Your task to perform on an android device: turn off location Image 0: 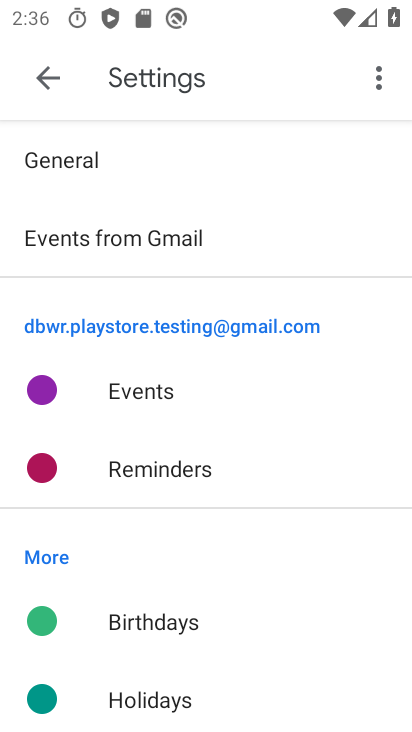
Step 0: press home button
Your task to perform on an android device: turn off location Image 1: 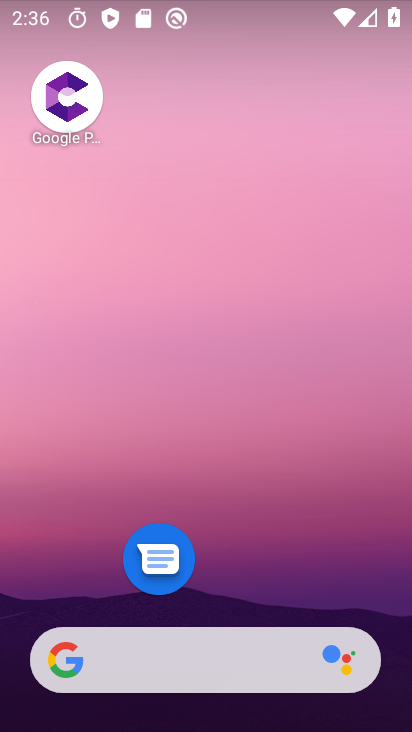
Step 1: drag from (243, 563) to (209, 119)
Your task to perform on an android device: turn off location Image 2: 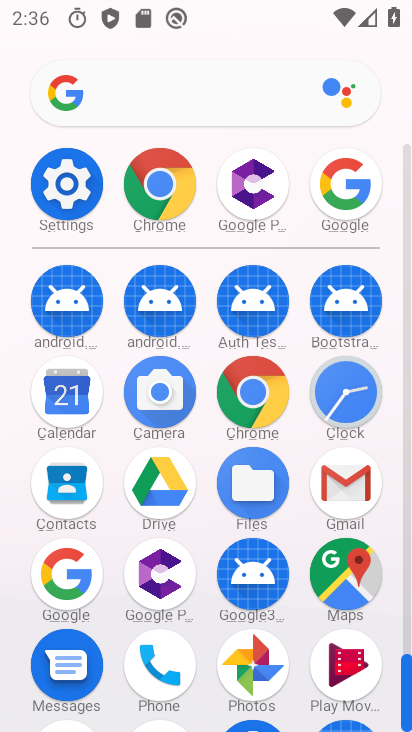
Step 2: click (60, 194)
Your task to perform on an android device: turn off location Image 3: 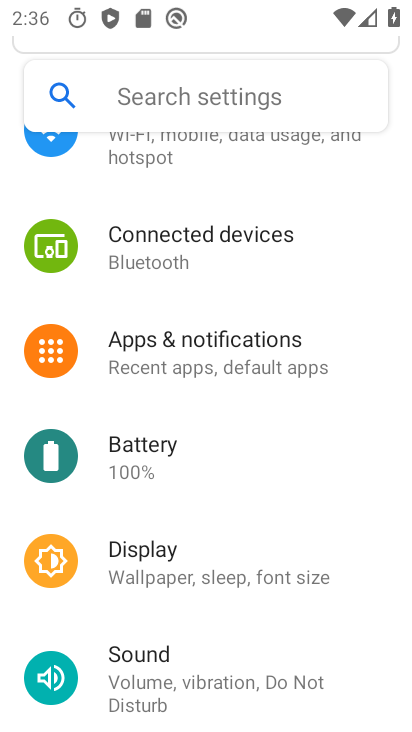
Step 3: drag from (240, 508) to (225, 17)
Your task to perform on an android device: turn off location Image 4: 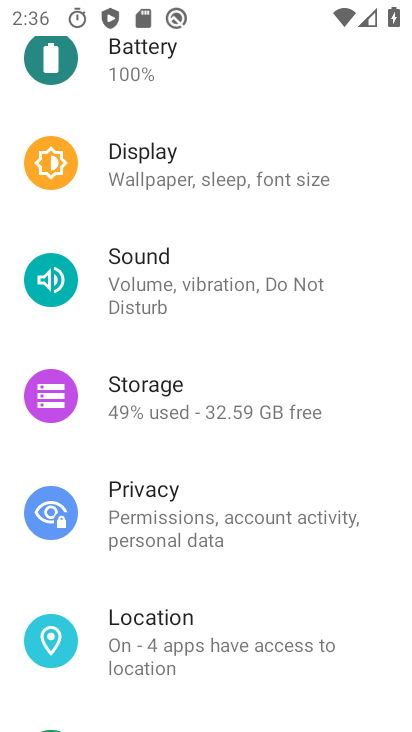
Step 4: click (189, 639)
Your task to perform on an android device: turn off location Image 5: 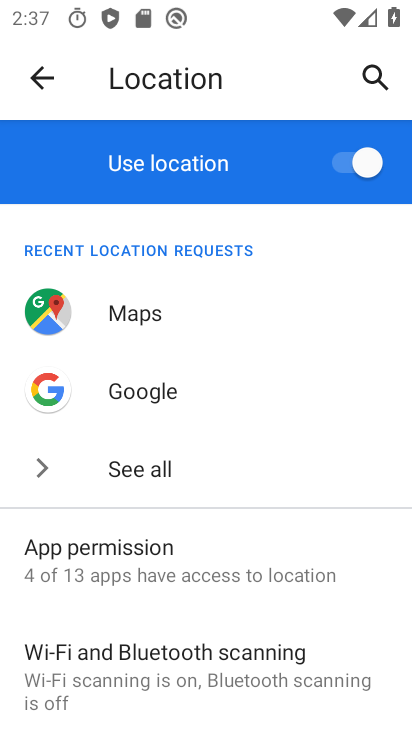
Step 5: drag from (240, 623) to (172, 210)
Your task to perform on an android device: turn off location Image 6: 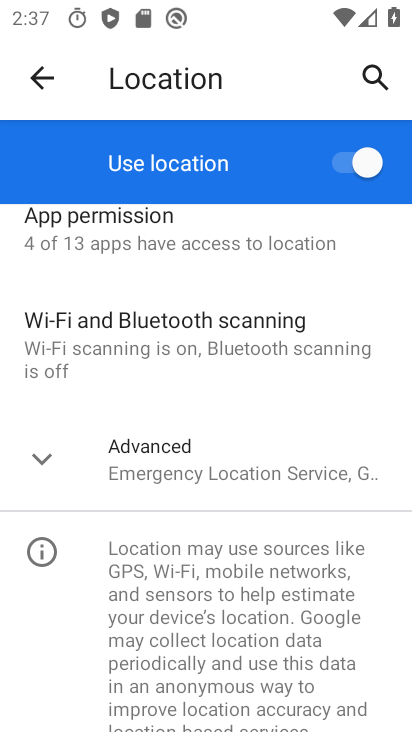
Step 6: click (348, 172)
Your task to perform on an android device: turn off location Image 7: 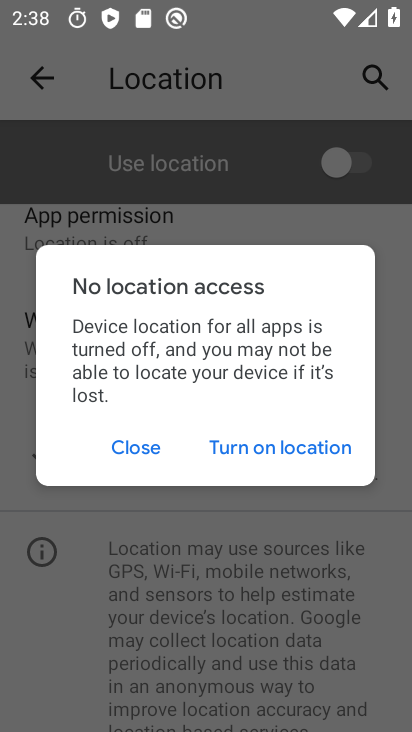
Step 7: task complete